Your task to perform on an android device: empty trash in the gmail app Image 0: 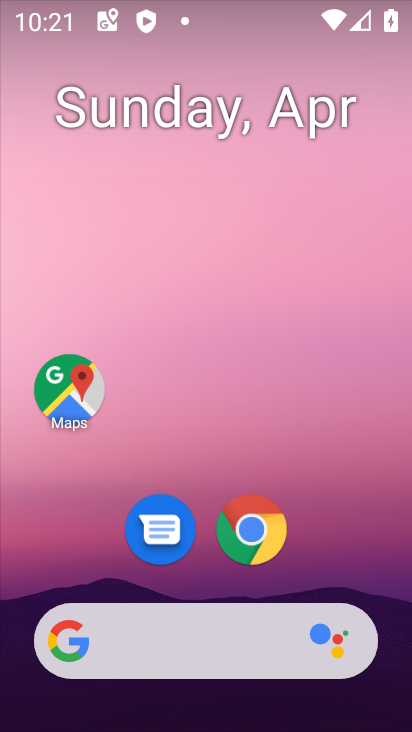
Step 0: drag from (200, 569) to (272, 138)
Your task to perform on an android device: empty trash in the gmail app Image 1: 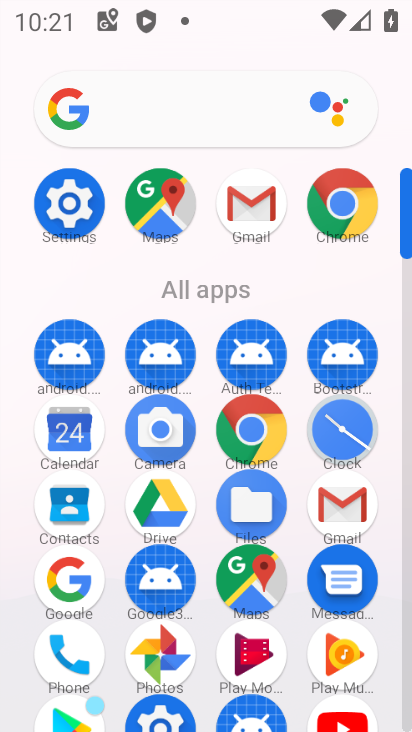
Step 1: click (247, 186)
Your task to perform on an android device: empty trash in the gmail app Image 2: 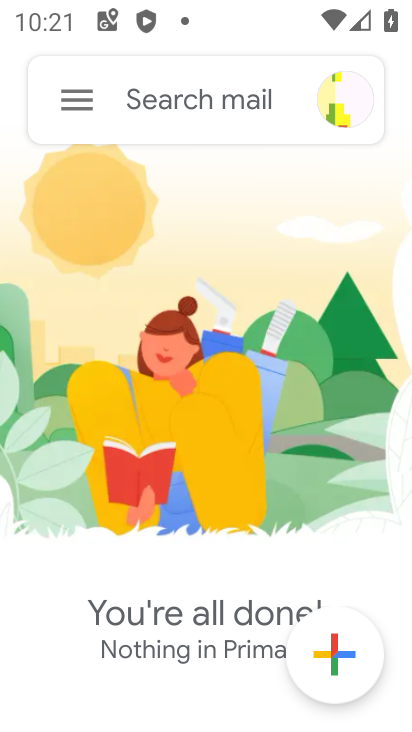
Step 2: click (88, 94)
Your task to perform on an android device: empty trash in the gmail app Image 3: 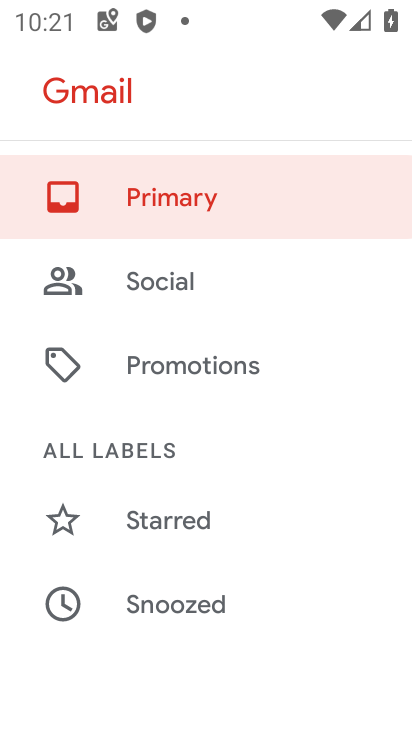
Step 3: drag from (128, 512) to (229, 34)
Your task to perform on an android device: empty trash in the gmail app Image 4: 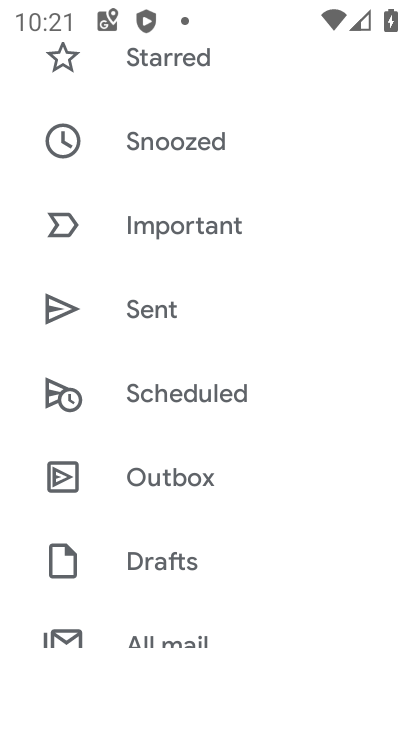
Step 4: drag from (173, 421) to (242, 86)
Your task to perform on an android device: empty trash in the gmail app Image 5: 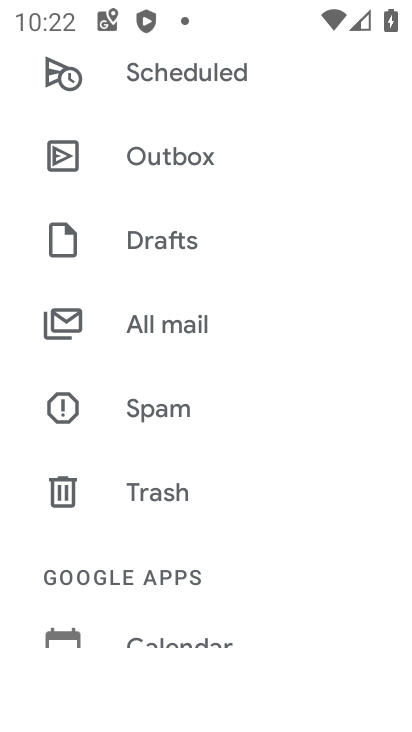
Step 5: click (162, 490)
Your task to perform on an android device: empty trash in the gmail app Image 6: 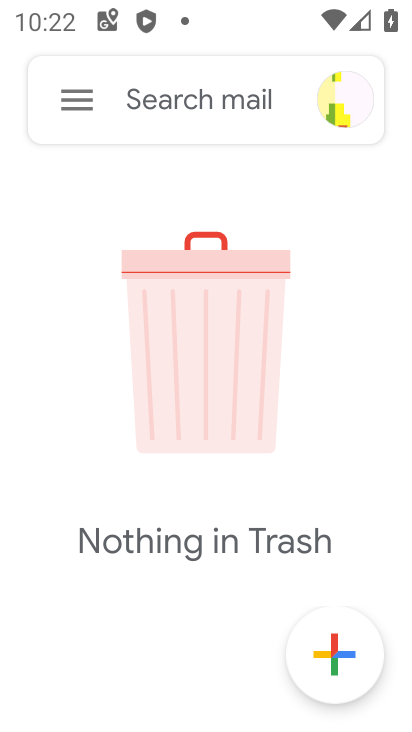
Step 6: task complete